Your task to perform on an android device: What is the recent news? Image 0: 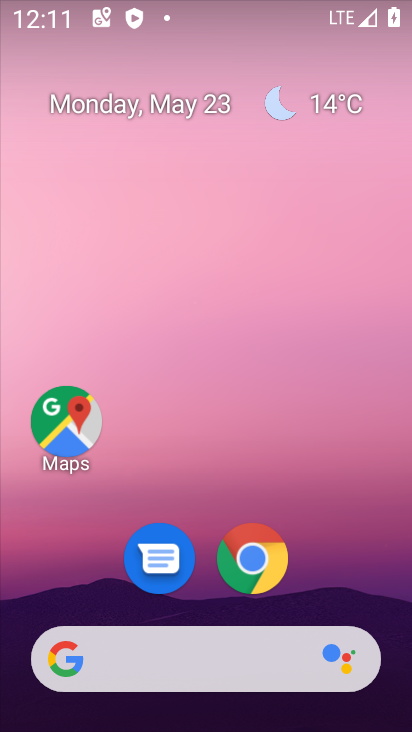
Step 0: click (123, 666)
Your task to perform on an android device: What is the recent news? Image 1: 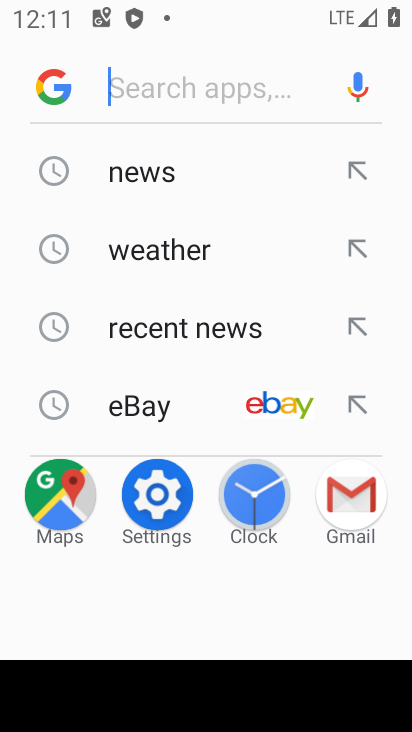
Step 1: click (162, 329)
Your task to perform on an android device: What is the recent news? Image 2: 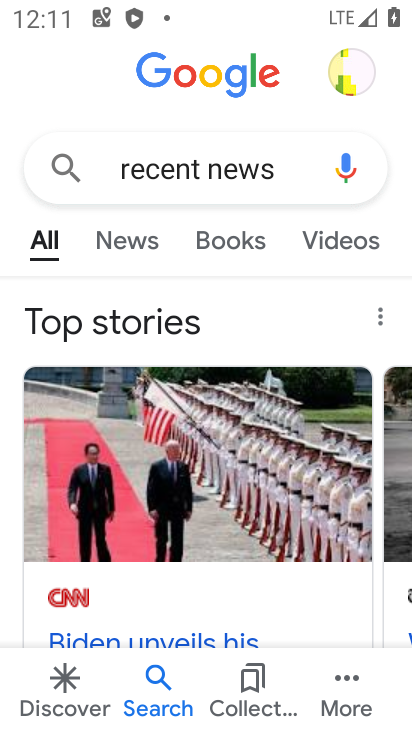
Step 2: click (114, 248)
Your task to perform on an android device: What is the recent news? Image 3: 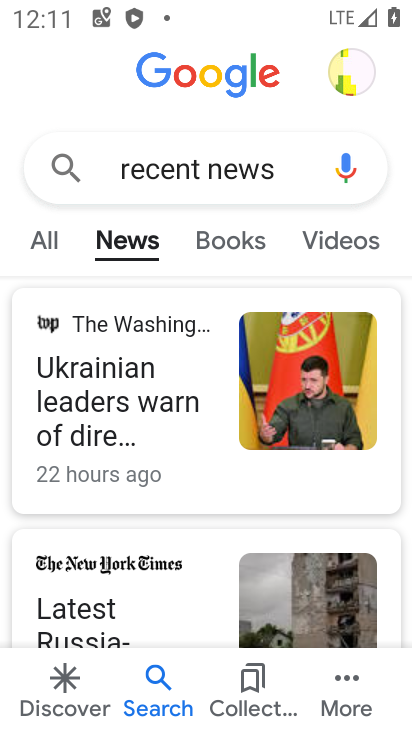
Step 3: drag from (239, 585) to (232, 208)
Your task to perform on an android device: What is the recent news? Image 4: 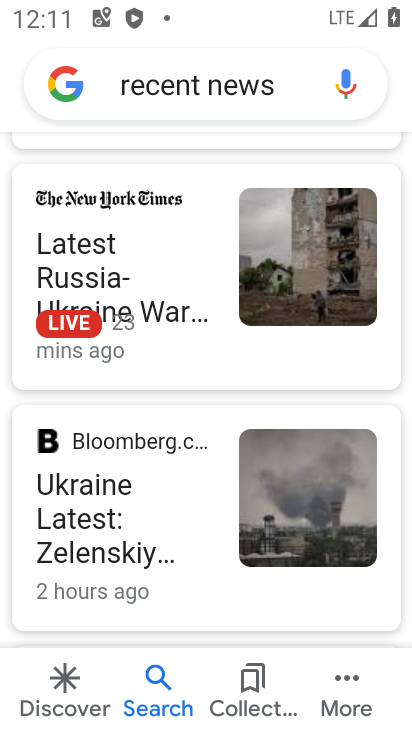
Step 4: click (135, 270)
Your task to perform on an android device: What is the recent news? Image 5: 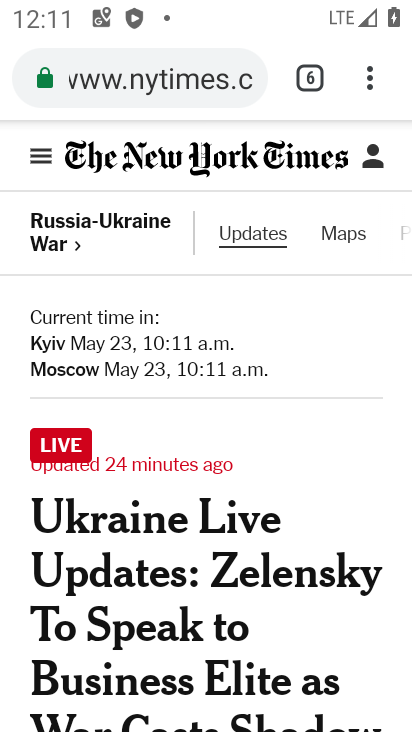
Step 5: task complete